Your task to perform on an android device: clear history in the chrome app Image 0: 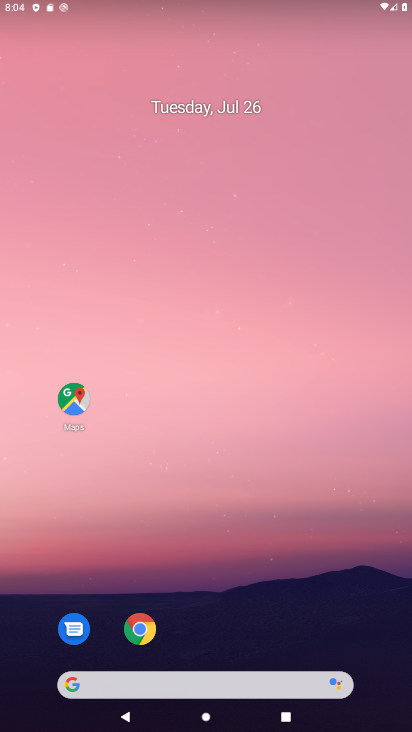
Step 0: drag from (195, 661) to (167, 0)
Your task to perform on an android device: clear history in the chrome app Image 1: 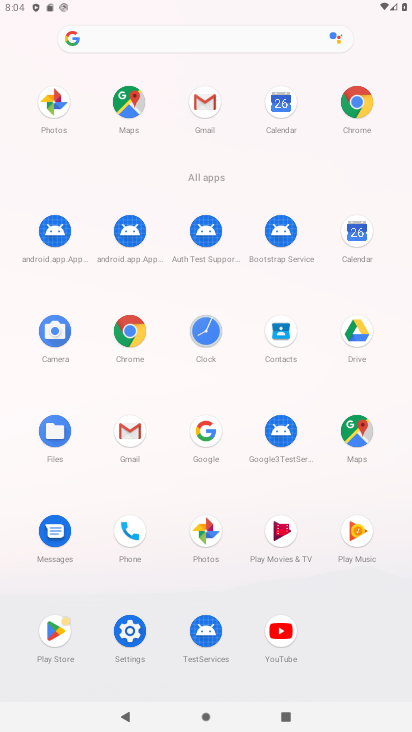
Step 1: click (133, 319)
Your task to perform on an android device: clear history in the chrome app Image 2: 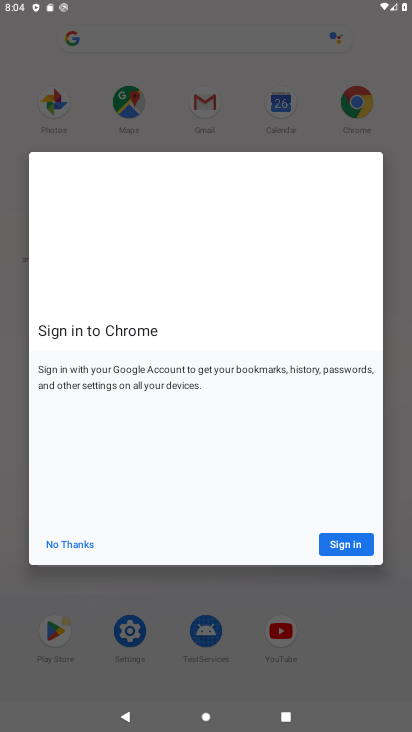
Step 2: click (346, 546)
Your task to perform on an android device: clear history in the chrome app Image 3: 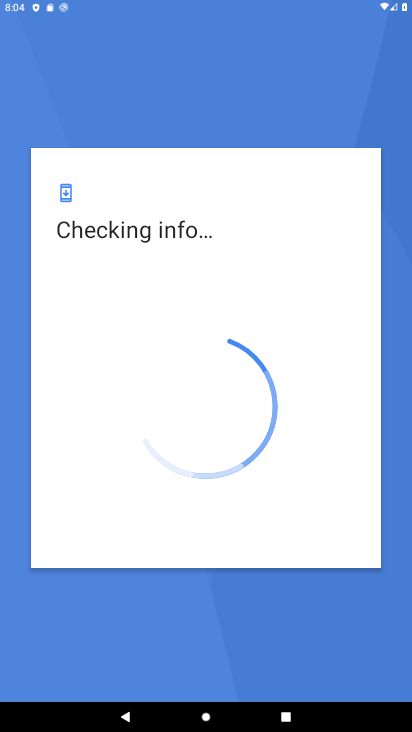
Step 3: task complete